Your task to perform on an android device: see creations saved in the google photos Image 0: 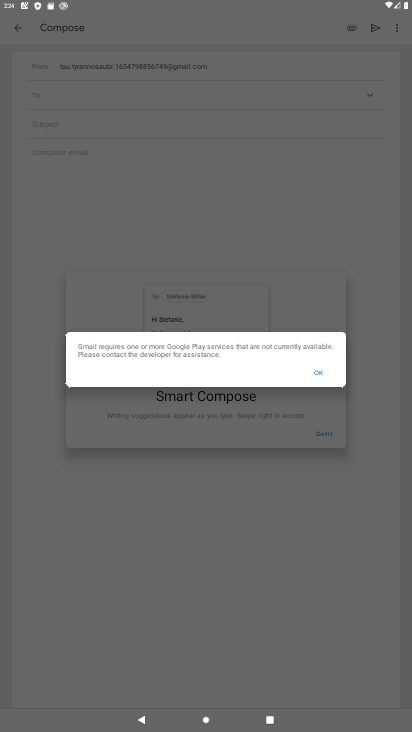
Step 0: press home button
Your task to perform on an android device: see creations saved in the google photos Image 1: 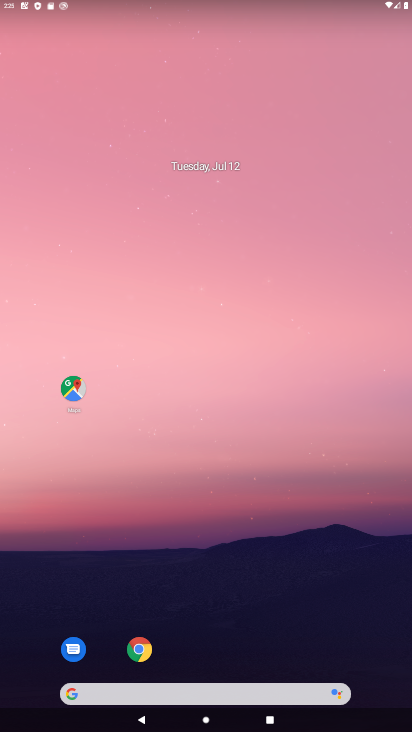
Step 1: drag from (229, 626) to (273, 50)
Your task to perform on an android device: see creations saved in the google photos Image 2: 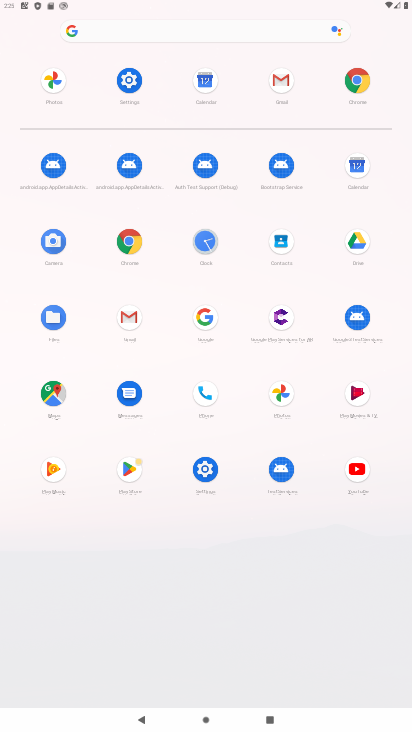
Step 2: click (288, 388)
Your task to perform on an android device: see creations saved in the google photos Image 3: 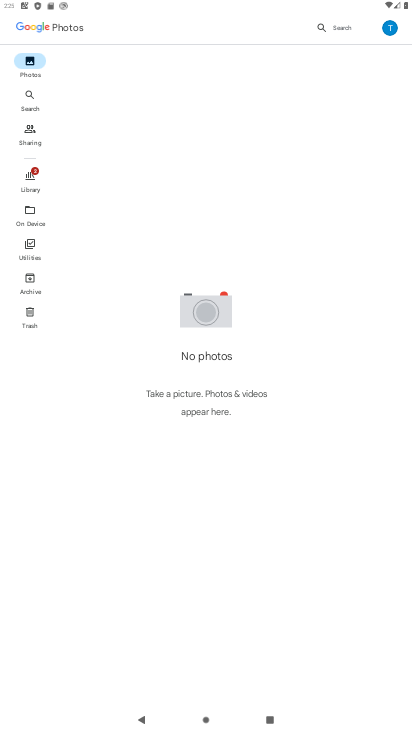
Step 3: task complete